Your task to perform on an android device: set default search engine in the chrome app Image 0: 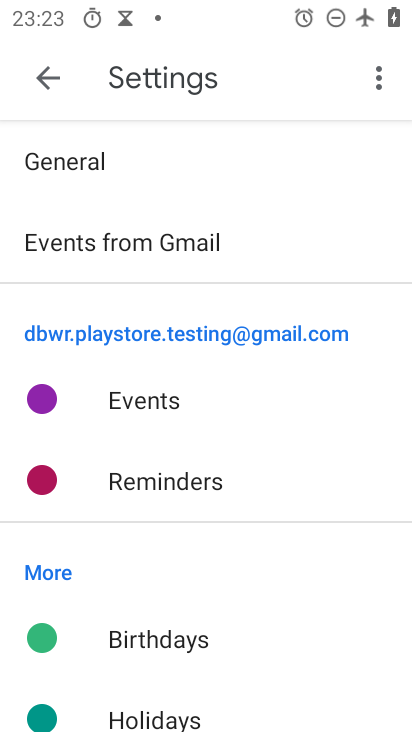
Step 0: press home button
Your task to perform on an android device: set default search engine in the chrome app Image 1: 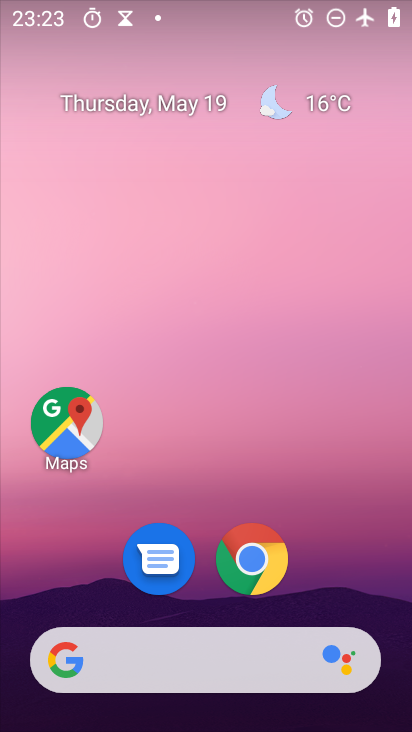
Step 1: click (255, 559)
Your task to perform on an android device: set default search engine in the chrome app Image 2: 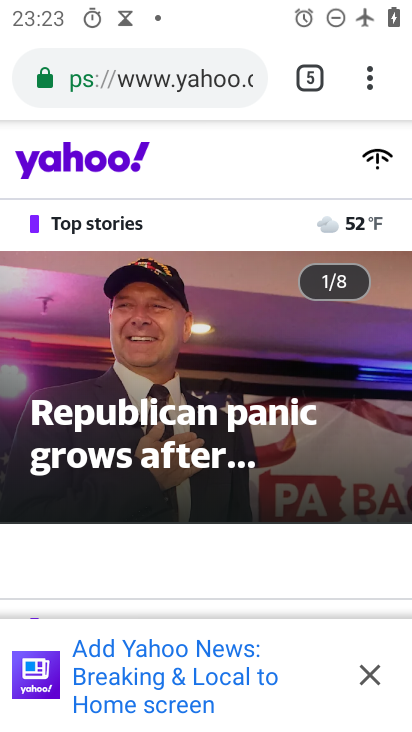
Step 2: click (368, 87)
Your task to perform on an android device: set default search engine in the chrome app Image 3: 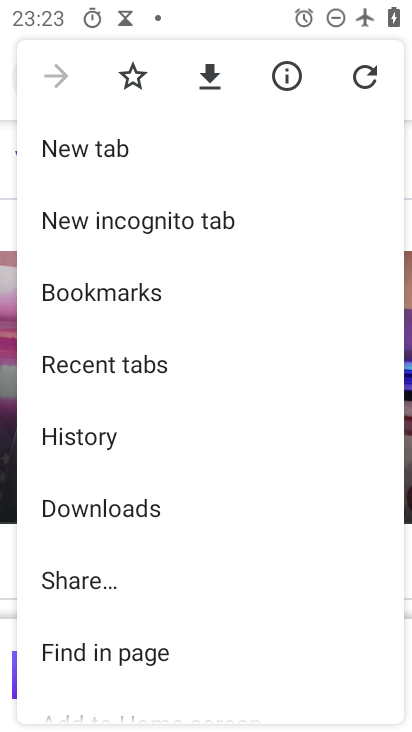
Step 3: drag from (99, 650) to (129, 322)
Your task to perform on an android device: set default search engine in the chrome app Image 4: 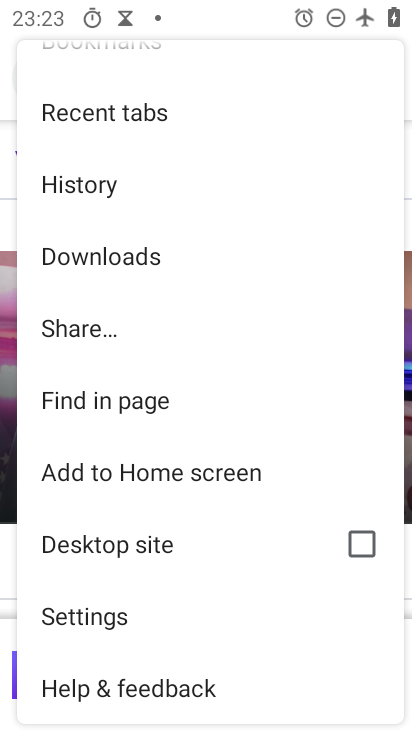
Step 4: click (94, 614)
Your task to perform on an android device: set default search engine in the chrome app Image 5: 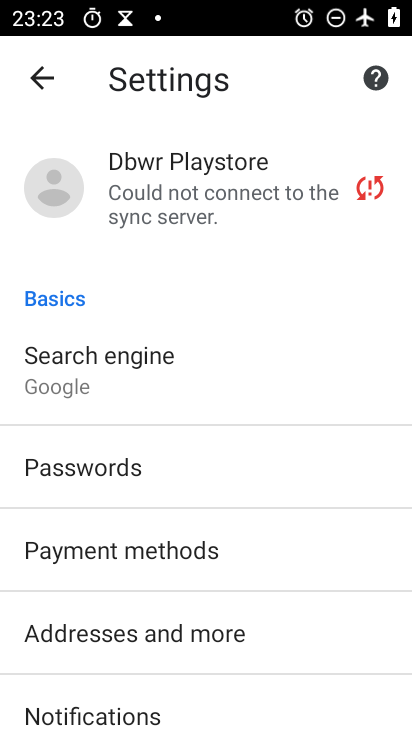
Step 5: drag from (150, 682) to (150, 339)
Your task to perform on an android device: set default search engine in the chrome app Image 6: 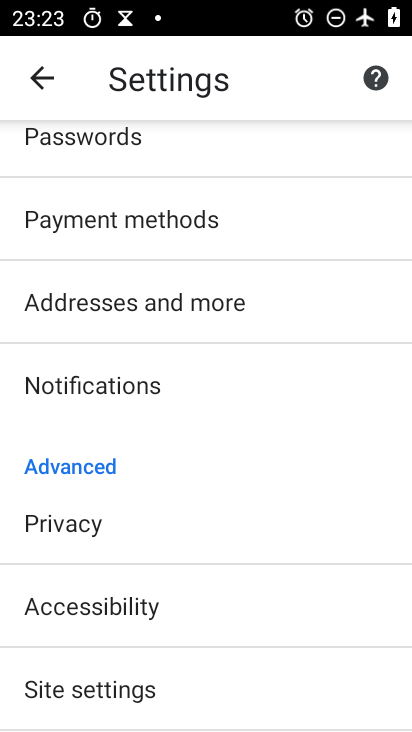
Step 6: drag from (173, 669) to (194, 401)
Your task to perform on an android device: set default search engine in the chrome app Image 7: 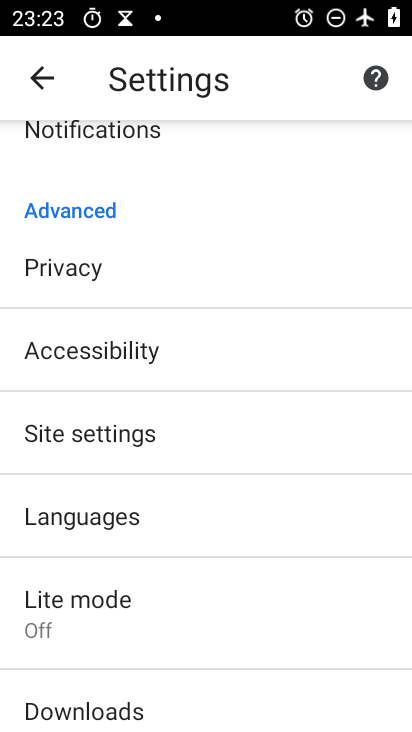
Step 7: drag from (282, 211) to (289, 609)
Your task to perform on an android device: set default search engine in the chrome app Image 8: 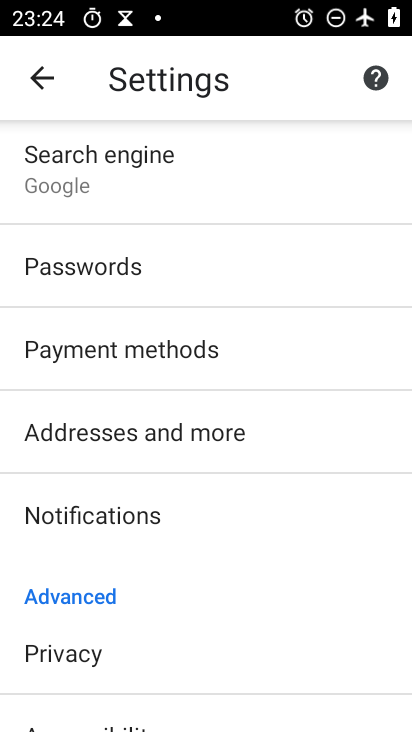
Step 8: drag from (258, 163) to (258, 467)
Your task to perform on an android device: set default search engine in the chrome app Image 9: 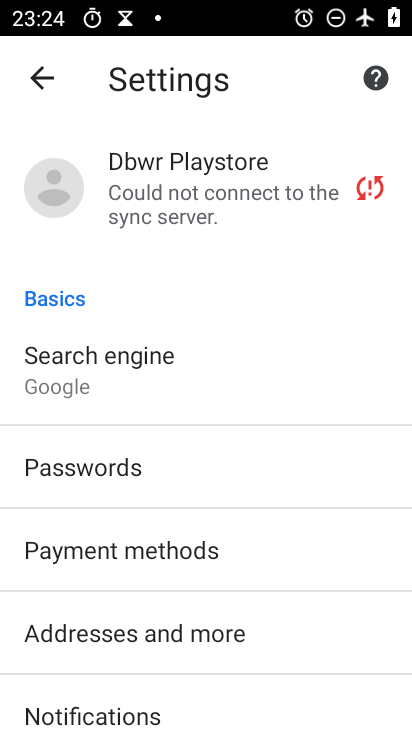
Step 9: click (73, 380)
Your task to perform on an android device: set default search engine in the chrome app Image 10: 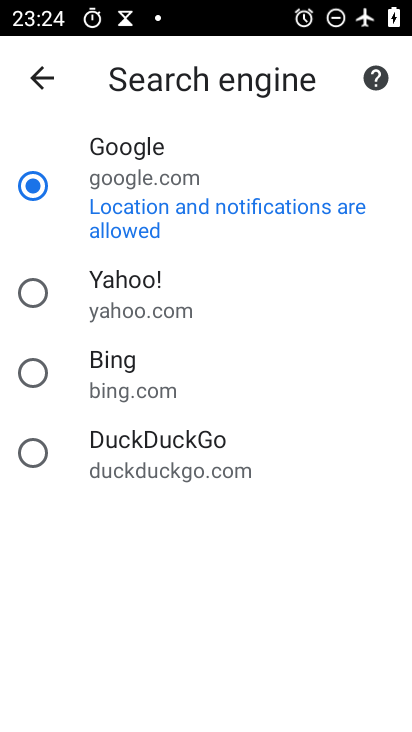
Step 10: click (28, 290)
Your task to perform on an android device: set default search engine in the chrome app Image 11: 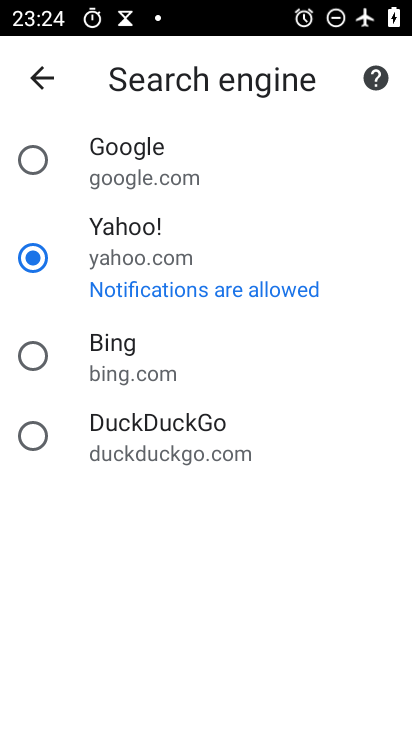
Step 11: task complete